Your task to perform on an android device: Open Google Maps Image 0: 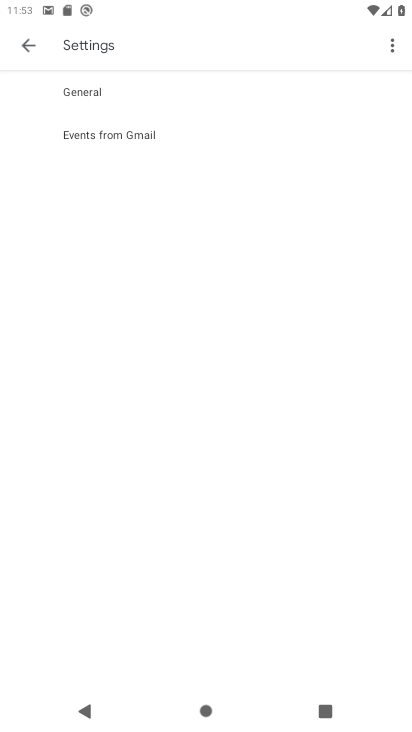
Step 0: press home button
Your task to perform on an android device: Open Google Maps Image 1: 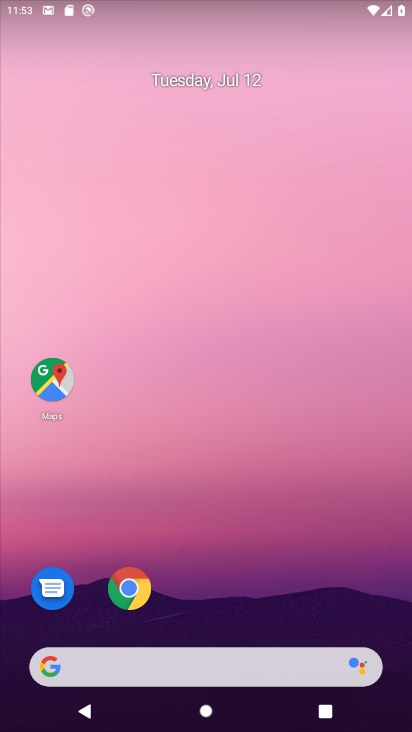
Step 1: click (49, 392)
Your task to perform on an android device: Open Google Maps Image 2: 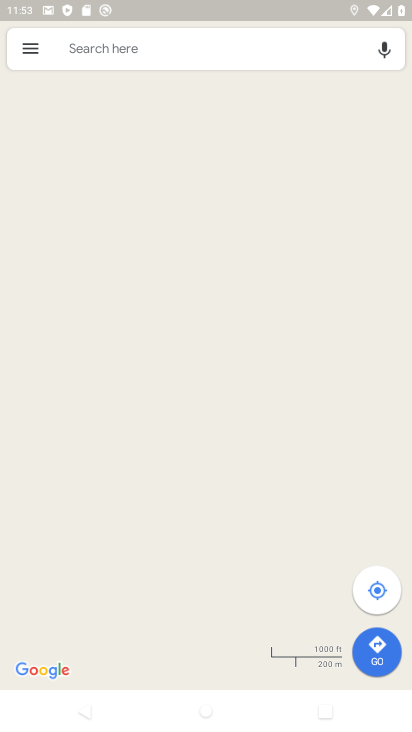
Step 2: task complete